Your task to perform on an android device: turn off smart reply in the gmail app Image 0: 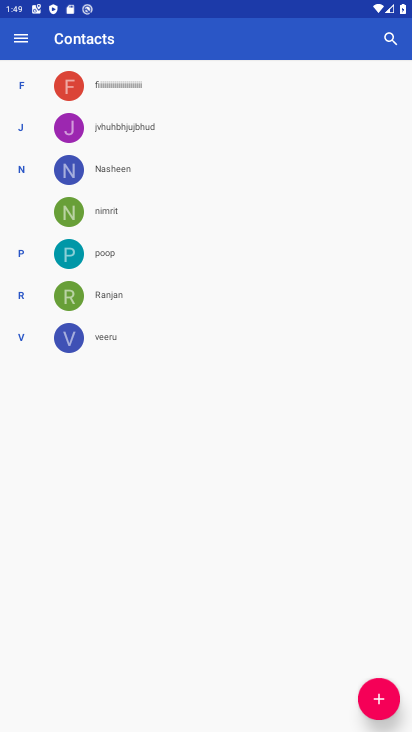
Step 0: press back button
Your task to perform on an android device: turn off smart reply in the gmail app Image 1: 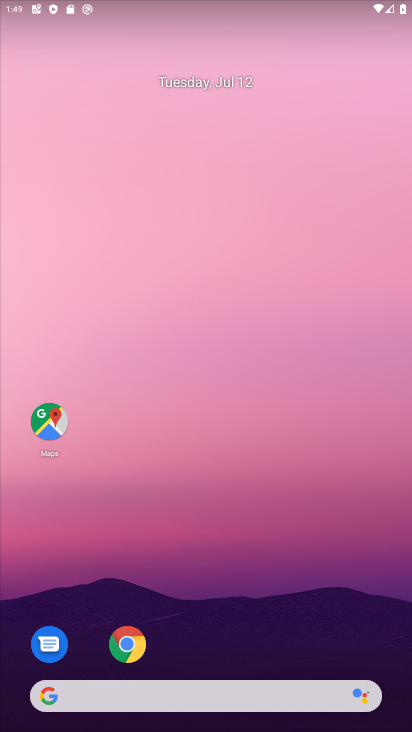
Step 1: drag from (216, 649) to (252, 138)
Your task to perform on an android device: turn off smart reply in the gmail app Image 2: 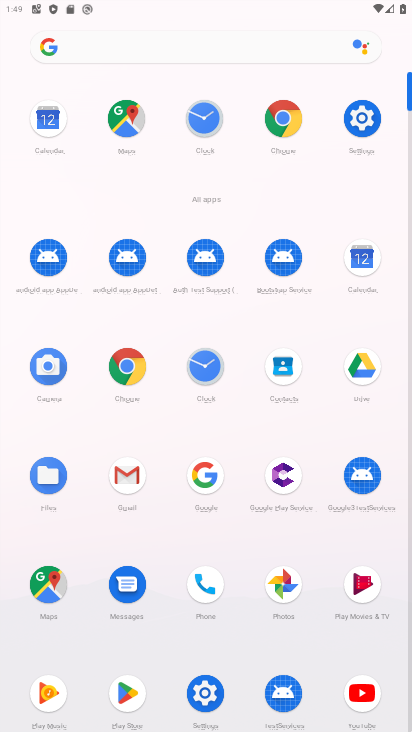
Step 2: click (121, 451)
Your task to perform on an android device: turn off smart reply in the gmail app Image 3: 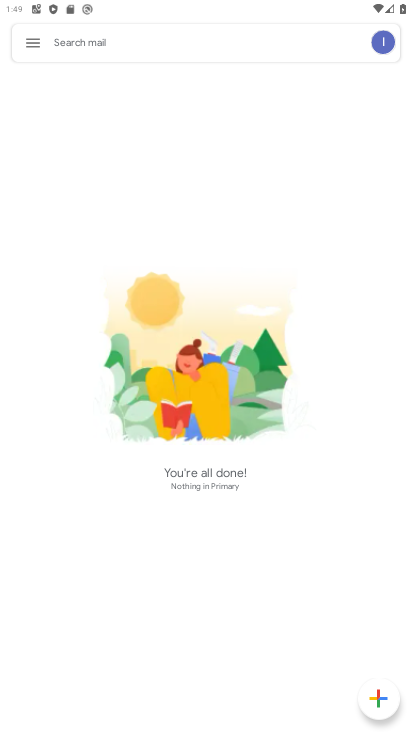
Step 3: click (38, 48)
Your task to perform on an android device: turn off smart reply in the gmail app Image 4: 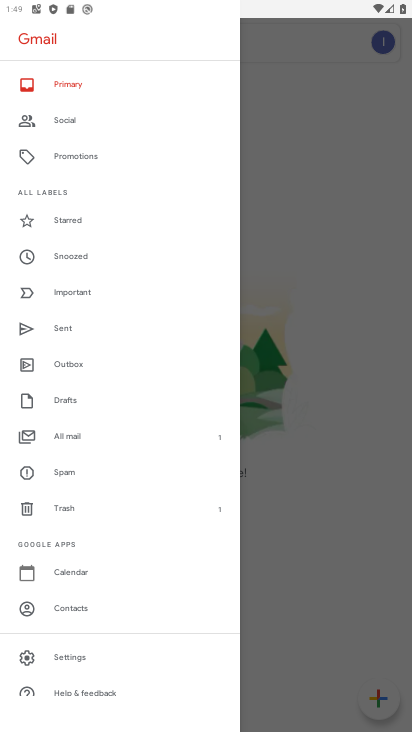
Step 4: click (67, 661)
Your task to perform on an android device: turn off smart reply in the gmail app Image 5: 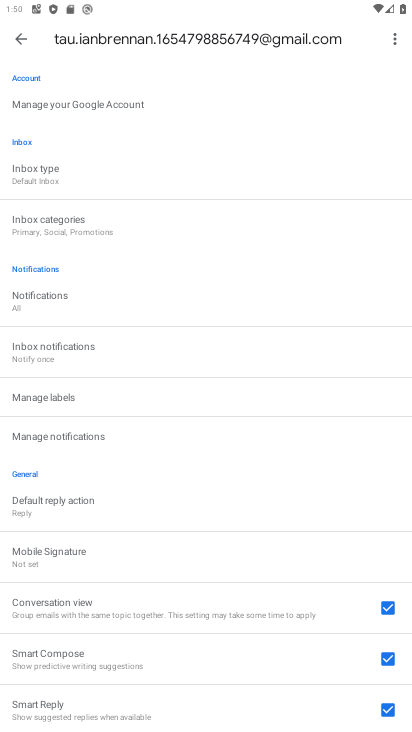
Step 5: click (389, 707)
Your task to perform on an android device: turn off smart reply in the gmail app Image 6: 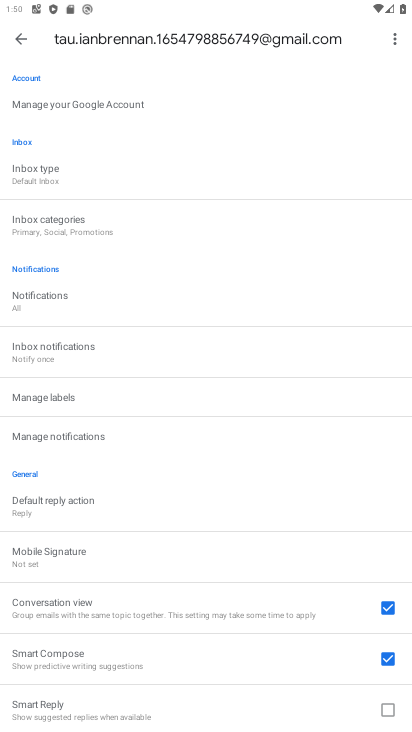
Step 6: task complete